Your task to perform on an android device: What is the recent news? Image 0: 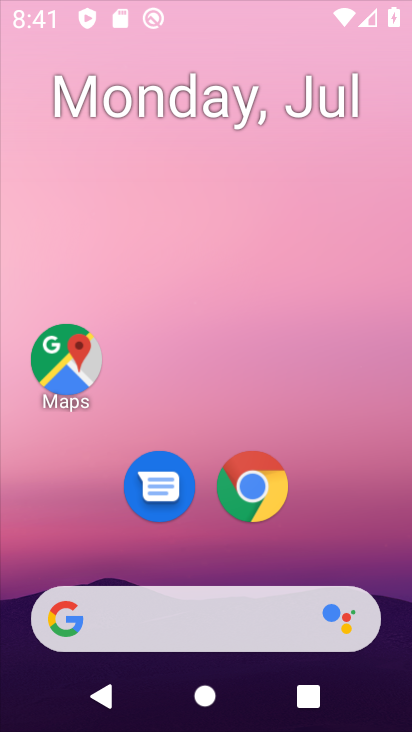
Step 0: click (266, 22)
Your task to perform on an android device: What is the recent news? Image 1: 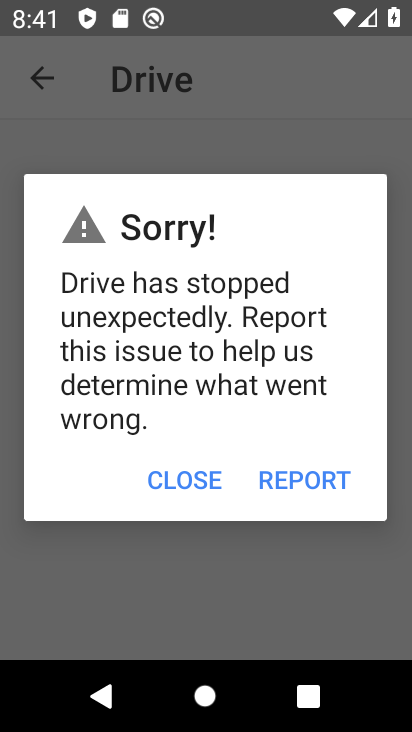
Step 1: click (178, 486)
Your task to perform on an android device: What is the recent news? Image 2: 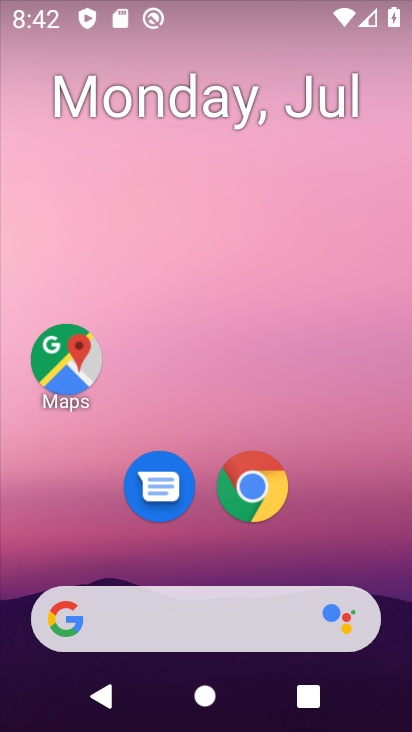
Step 2: click (155, 634)
Your task to perform on an android device: What is the recent news? Image 3: 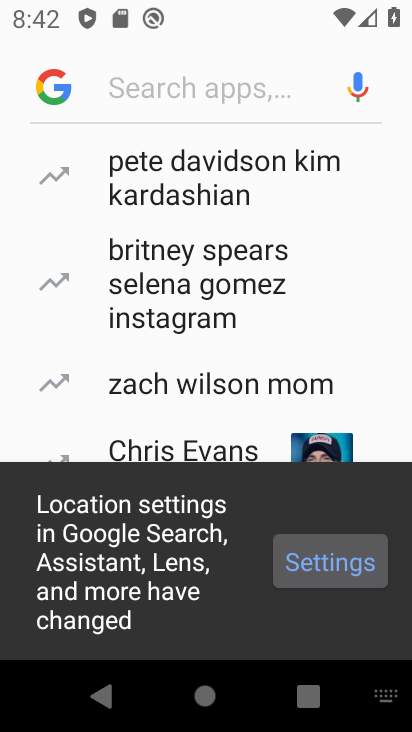
Step 3: click (140, 78)
Your task to perform on an android device: What is the recent news? Image 4: 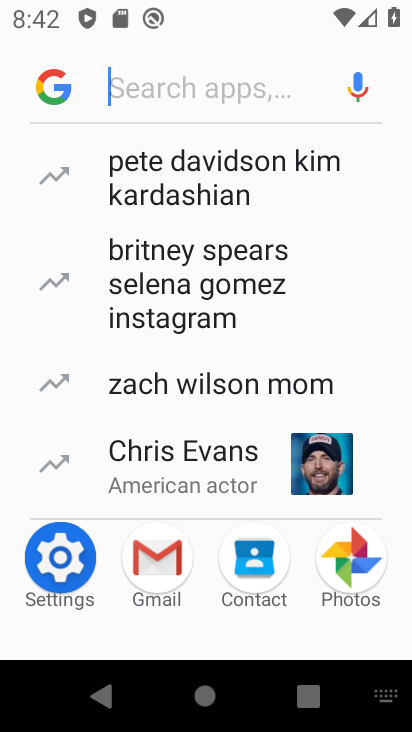
Step 4: type "recent news"
Your task to perform on an android device: What is the recent news? Image 5: 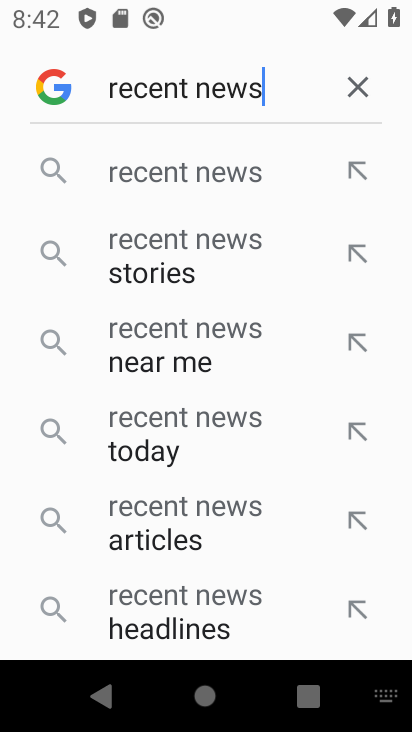
Step 5: click (149, 167)
Your task to perform on an android device: What is the recent news? Image 6: 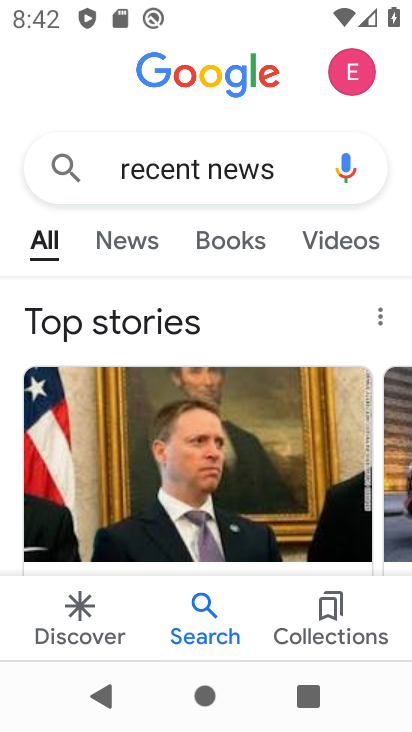
Step 6: task complete